Your task to perform on an android device: Go to calendar. Show me events next week Image 0: 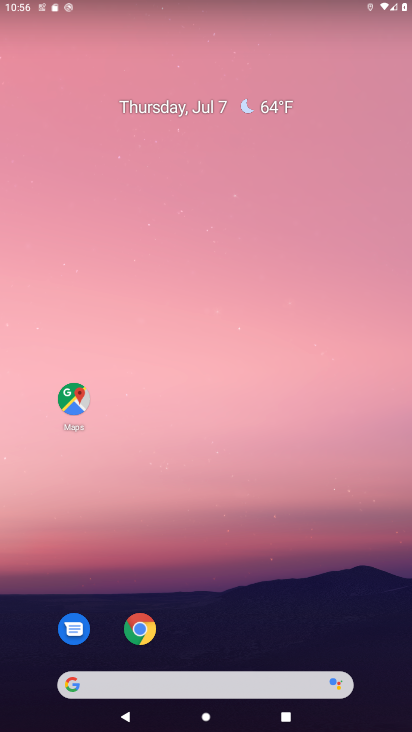
Step 0: drag from (254, 624) to (300, 249)
Your task to perform on an android device: Go to calendar. Show me events next week Image 1: 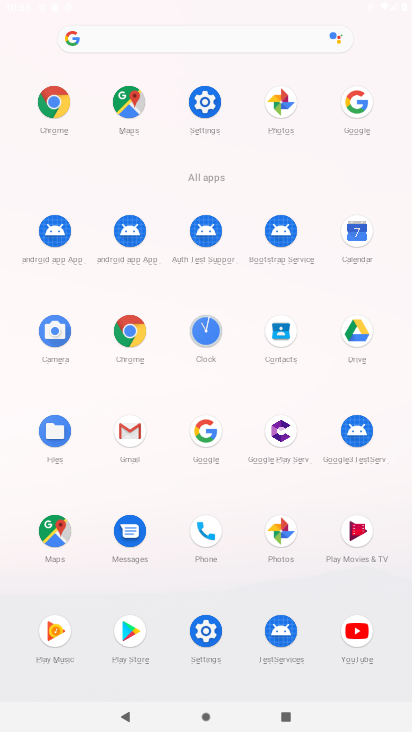
Step 1: click (358, 233)
Your task to perform on an android device: Go to calendar. Show me events next week Image 2: 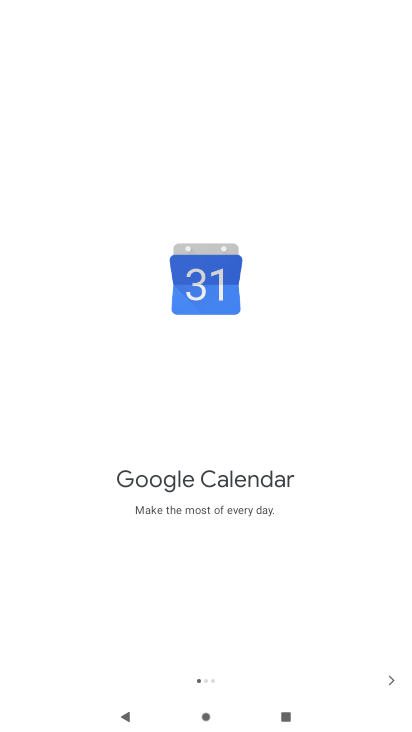
Step 2: click (395, 679)
Your task to perform on an android device: Go to calendar. Show me events next week Image 3: 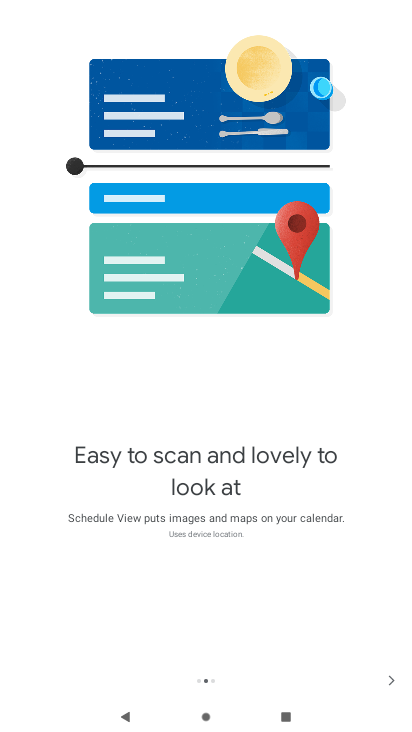
Step 3: click (395, 679)
Your task to perform on an android device: Go to calendar. Show me events next week Image 4: 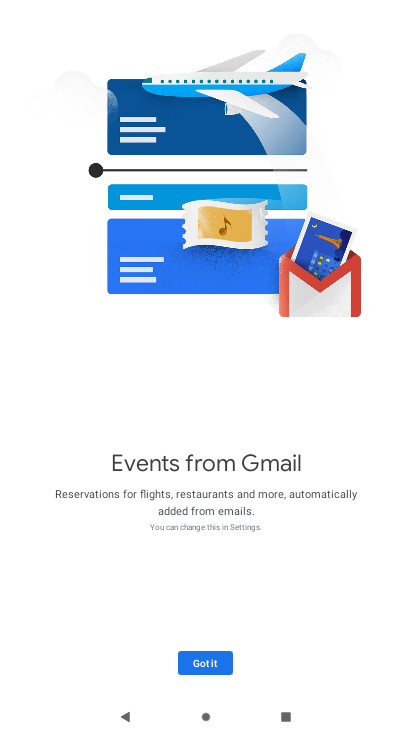
Step 4: click (202, 659)
Your task to perform on an android device: Go to calendar. Show me events next week Image 5: 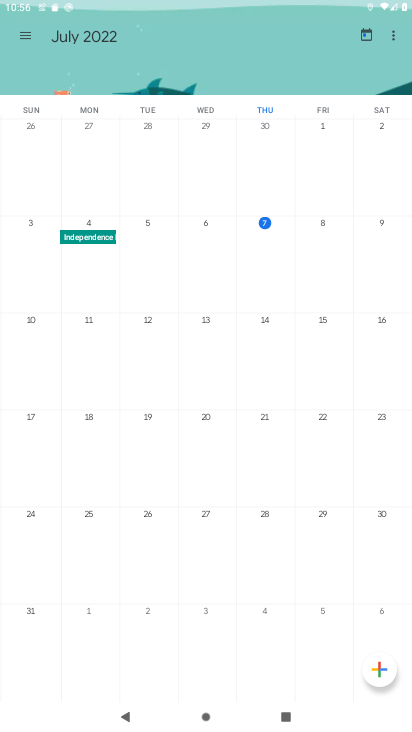
Step 5: click (389, 222)
Your task to perform on an android device: Go to calendar. Show me events next week Image 6: 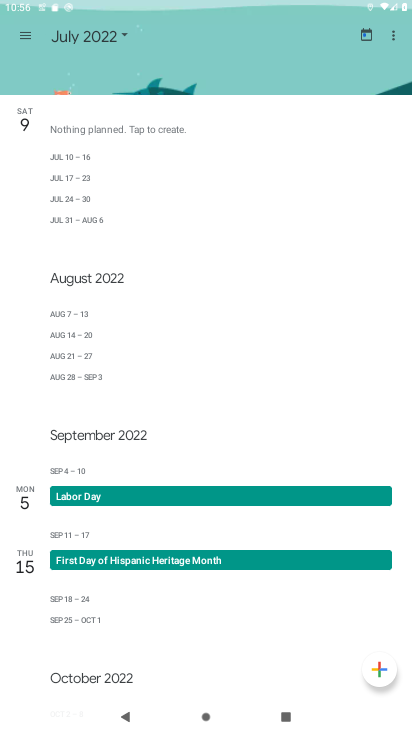
Step 6: task complete